Your task to perform on an android device: turn off sleep mode Image 0: 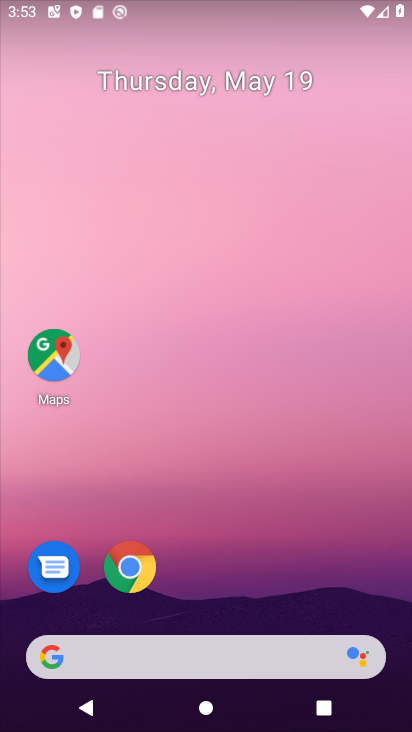
Step 0: drag from (223, 588) to (278, 10)
Your task to perform on an android device: turn off sleep mode Image 1: 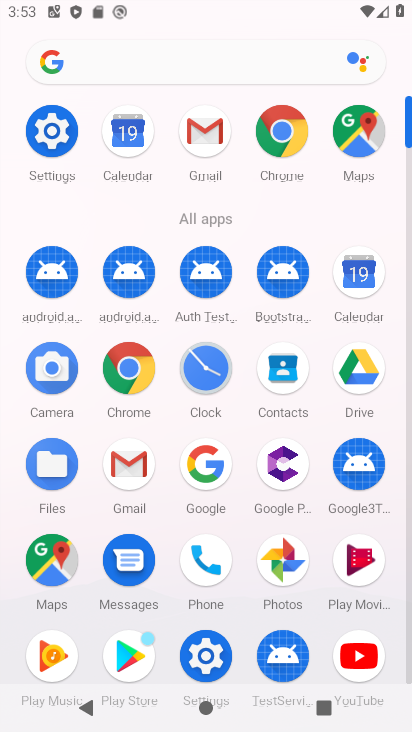
Step 1: click (56, 149)
Your task to perform on an android device: turn off sleep mode Image 2: 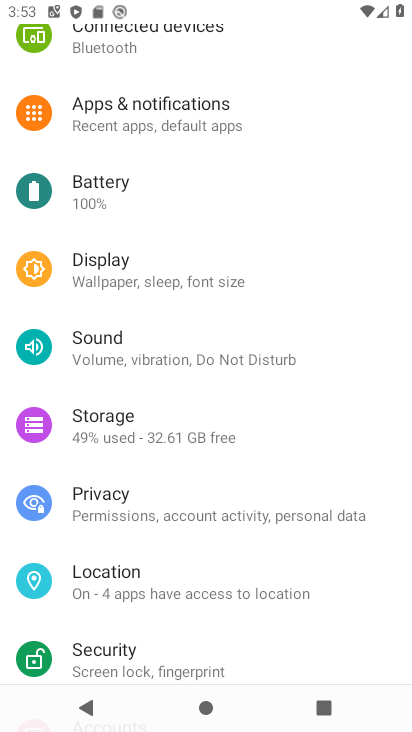
Step 2: task complete